Your task to perform on an android device: Go to eBay Image 0: 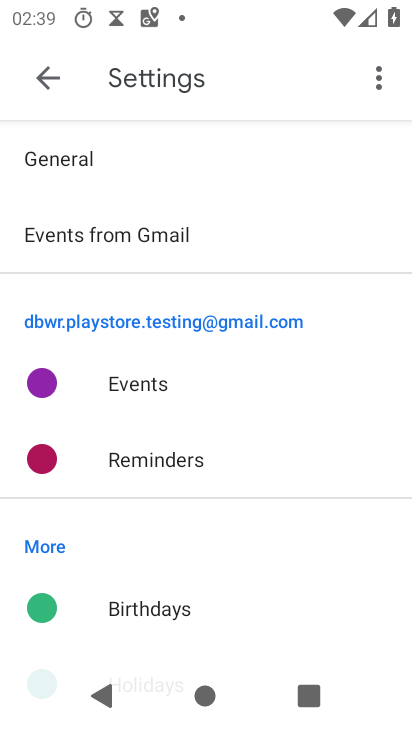
Step 0: press home button
Your task to perform on an android device: Go to eBay Image 1: 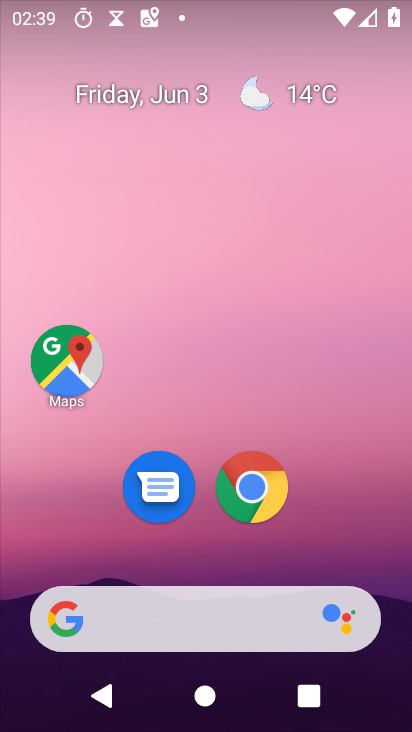
Step 1: click (273, 486)
Your task to perform on an android device: Go to eBay Image 2: 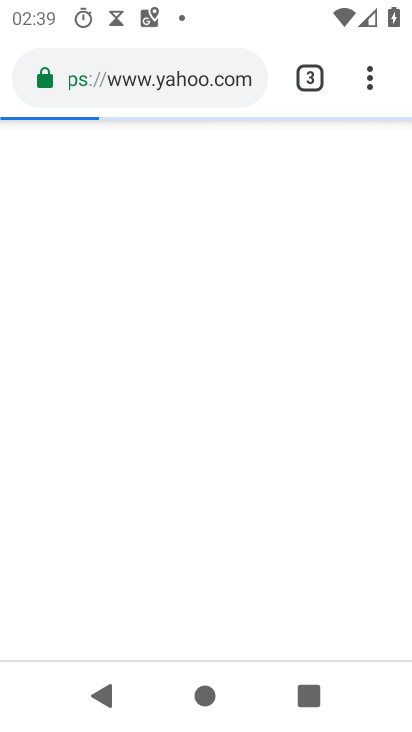
Step 2: click (307, 73)
Your task to perform on an android device: Go to eBay Image 3: 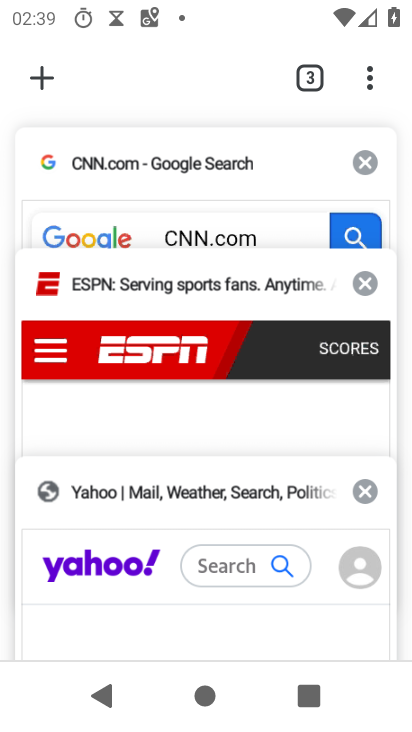
Step 3: click (38, 70)
Your task to perform on an android device: Go to eBay Image 4: 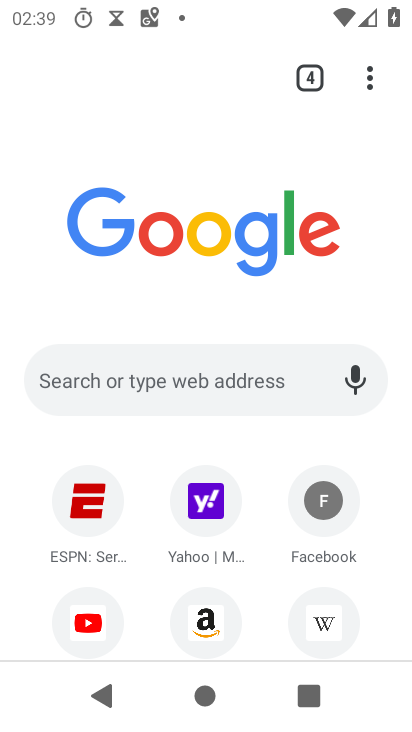
Step 4: drag from (268, 583) to (246, 315)
Your task to perform on an android device: Go to eBay Image 5: 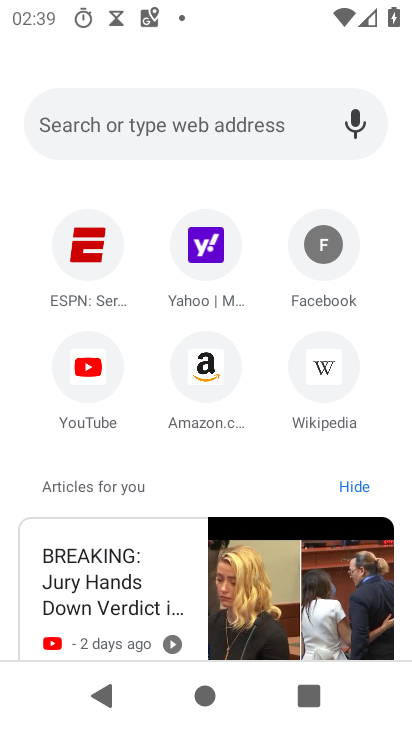
Step 5: click (172, 133)
Your task to perform on an android device: Go to eBay Image 6: 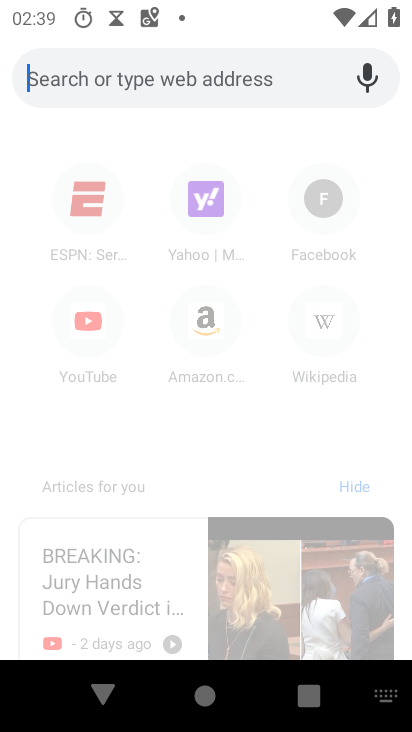
Step 6: type "eBay"
Your task to perform on an android device: Go to eBay Image 7: 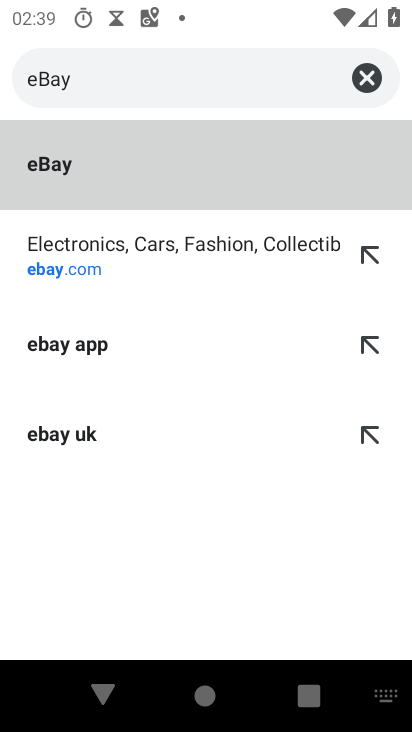
Step 7: click (170, 268)
Your task to perform on an android device: Go to eBay Image 8: 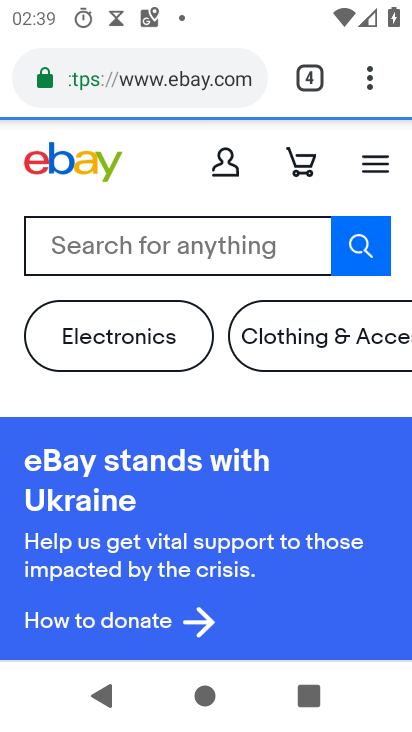
Step 8: task complete